Your task to perform on an android device: Go to location settings Image 0: 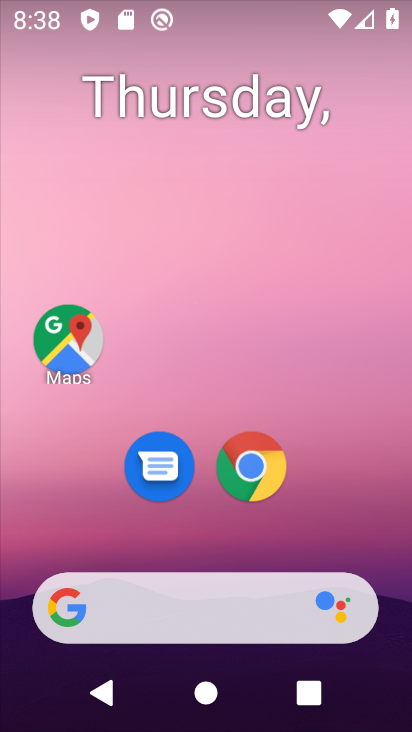
Step 0: press home button
Your task to perform on an android device: Go to location settings Image 1: 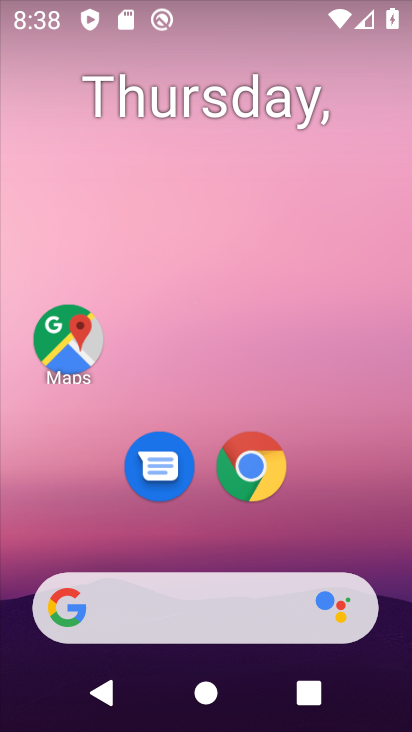
Step 1: drag from (164, 603) to (341, 58)
Your task to perform on an android device: Go to location settings Image 2: 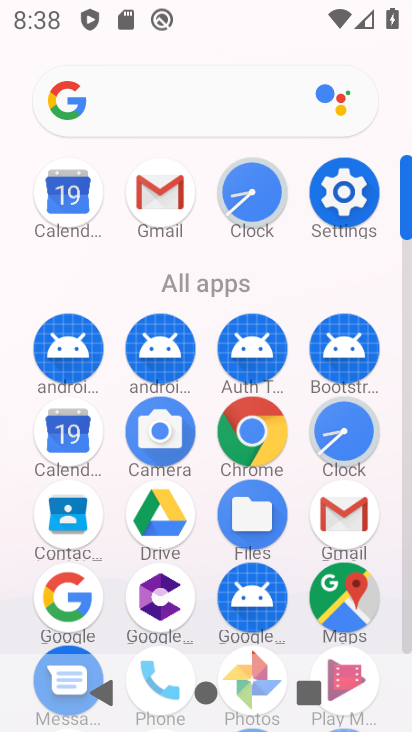
Step 2: click (347, 186)
Your task to perform on an android device: Go to location settings Image 3: 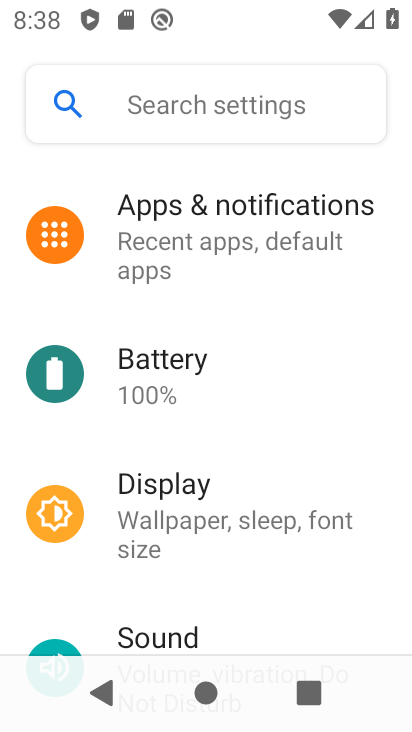
Step 3: drag from (229, 576) to (354, 78)
Your task to perform on an android device: Go to location settings Image 4: 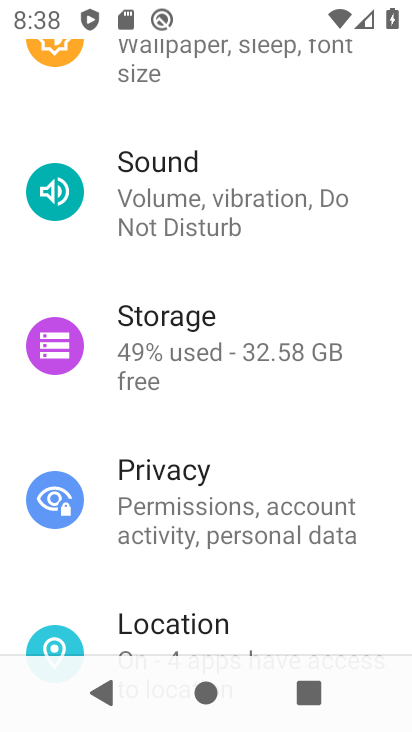
Step 4: drag from (230, 566) to (305, 243)
Your task to perform on an android device: Go to location settings Image 5: 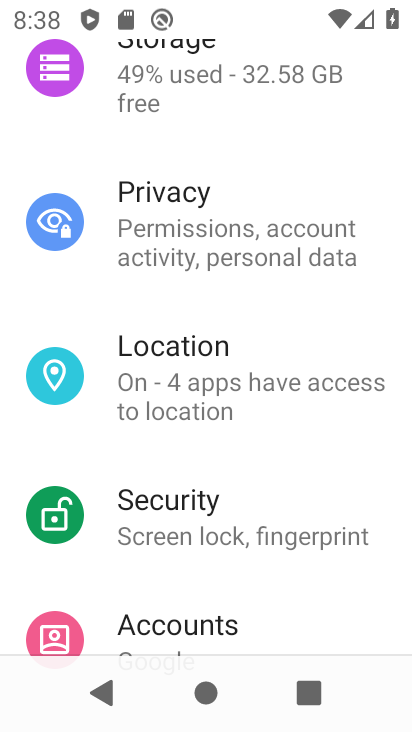
Step 5: click (201, 344)
Your task to perform on an android device: Go to location settings Image 6: 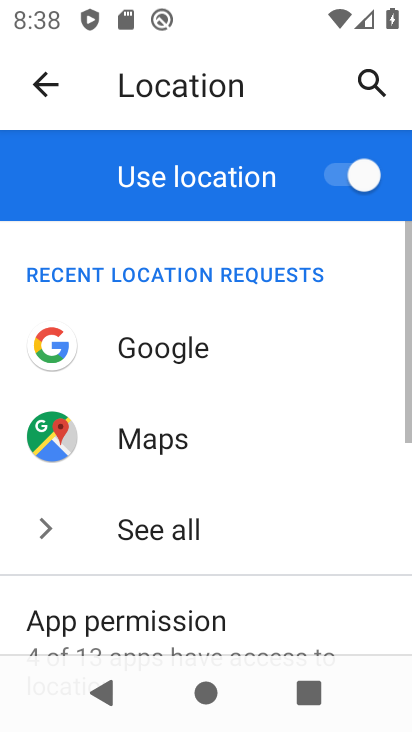
Step 6: task complete